Your task to perform on an android device: turn on javascript in the chrome app Image 0: 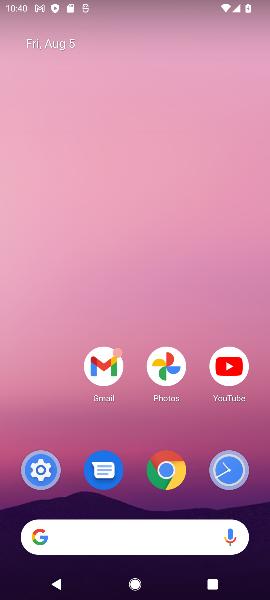
Step 0: click (162, 468)
Your task to perform on an android device: turn on javascript in the chrome app Image 1: 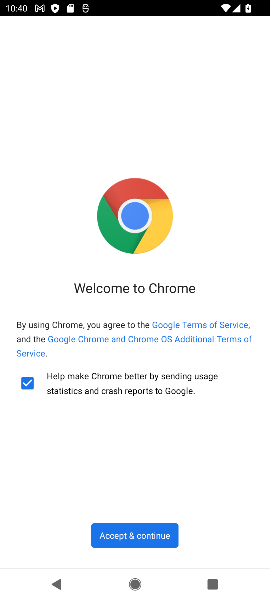
Step 1: click (125, 539)
Your task to perform on an android device: turn on javascript in the chrome app Image 2: 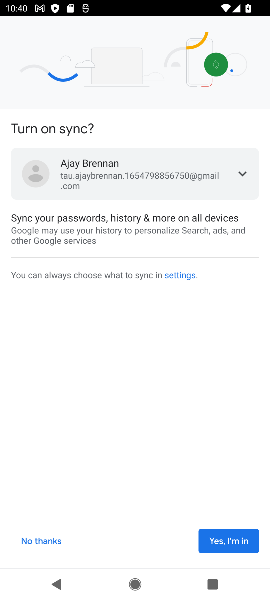
Step 2: click (222, 539)
Your task to perform on an android device: turn on javascript in the chrome app Image 3: 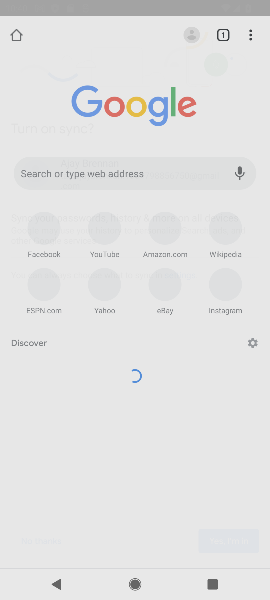
Step 3: click (222, 540)
Your task to perform on an android device: turn on javascript in the chrome app Image 4: 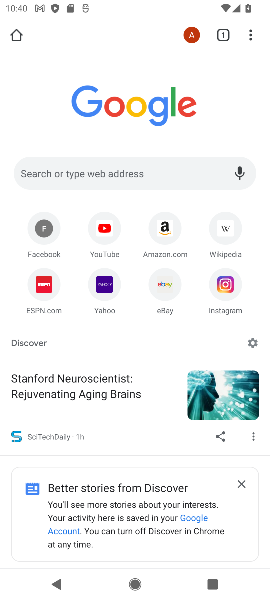
Step 4: click (247, 36)
Your task to perform on an android device: turn on javascript in the chrome app Image 5: 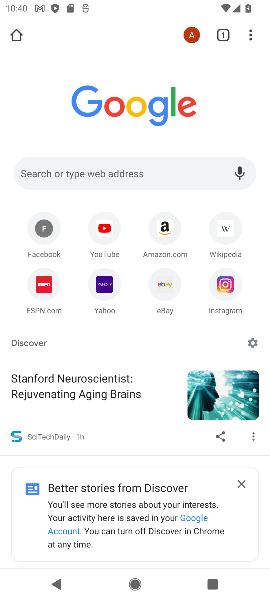
Step 5: click (247, 37)
Your task to perform on an android device: turn on javascript in the chrome app Image 6: 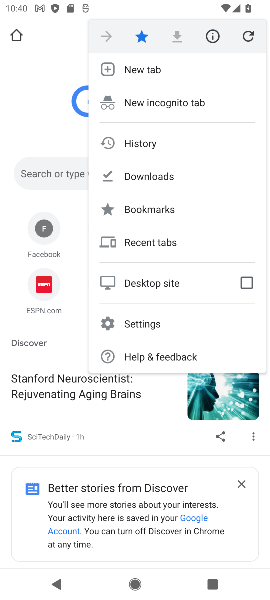
Step 6: click (154, 320)
Your task to perform on an android device: turn on javascript in the chrome app Image 7: 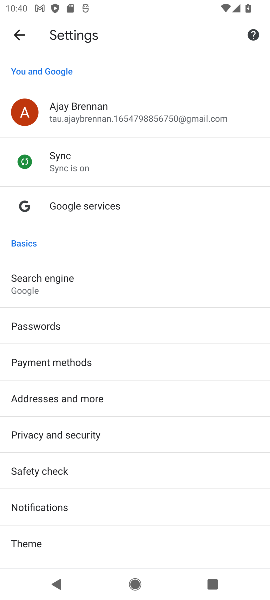
Step 7: drag from (48, 536) to (35, 259)
Your task to perform on an android device: turn on javascript in the chrome app Image 8: 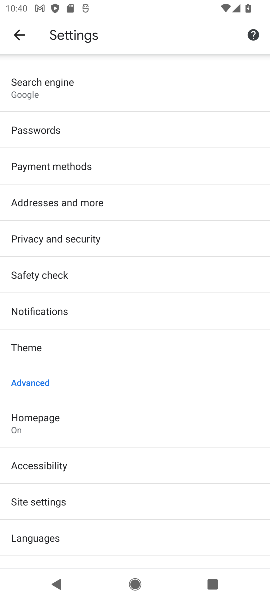
Step 8: click (37, 505)
Your task to perform on an android device: turn on javascript in the chrome app Image 9: 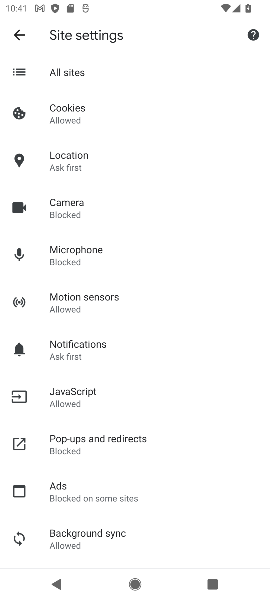
Step 9: click (63, 386)
Your task to perform on an android device: turn on javascript in the chrome app Image 10: 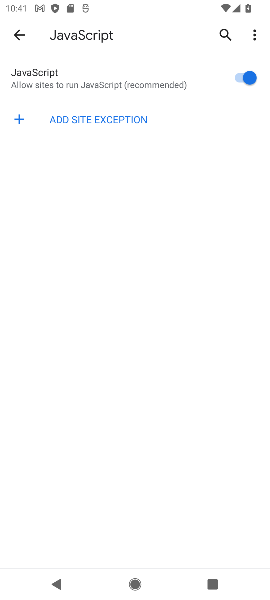
Step 10: task complete